Your task to perform on an android device: Go to battery settings Image 0: 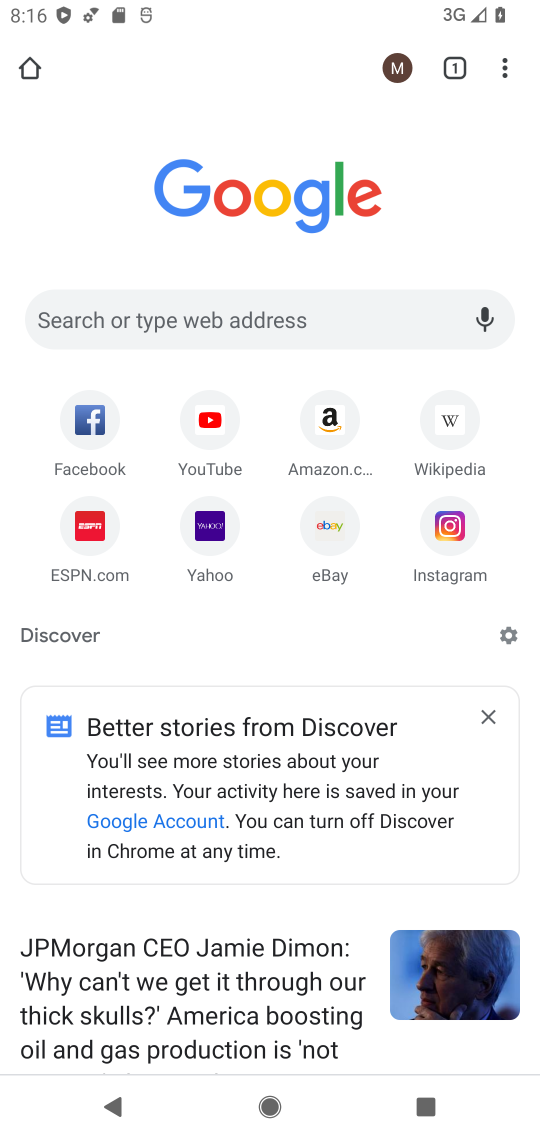
Step 0: press home button
Your task to perform on an android device: Go to battery settings Image 1: 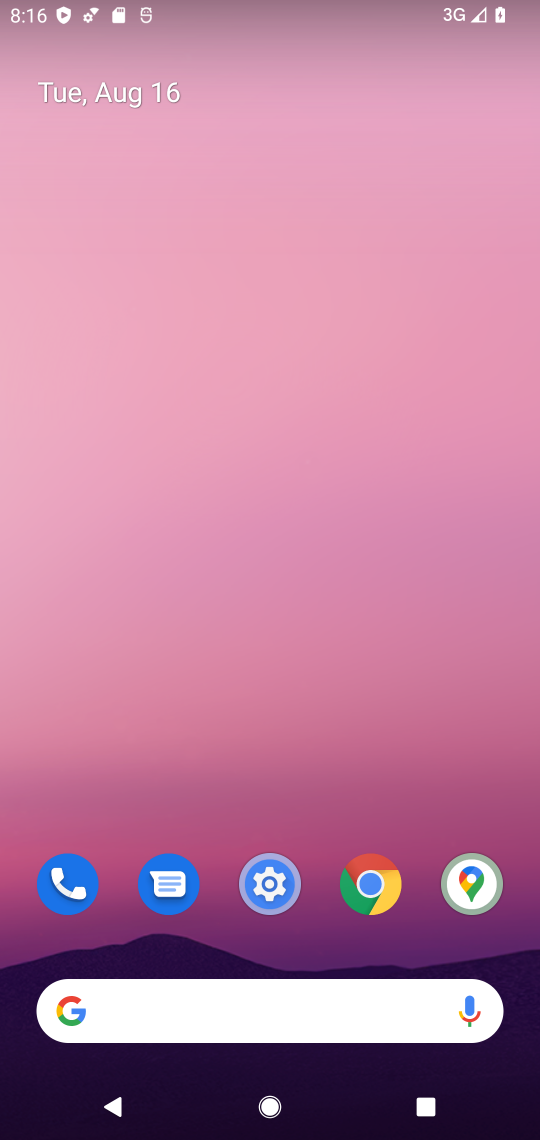
Step 1: click (267, 883)
Your task to perform on an android device: Go to battery settings Image 2: 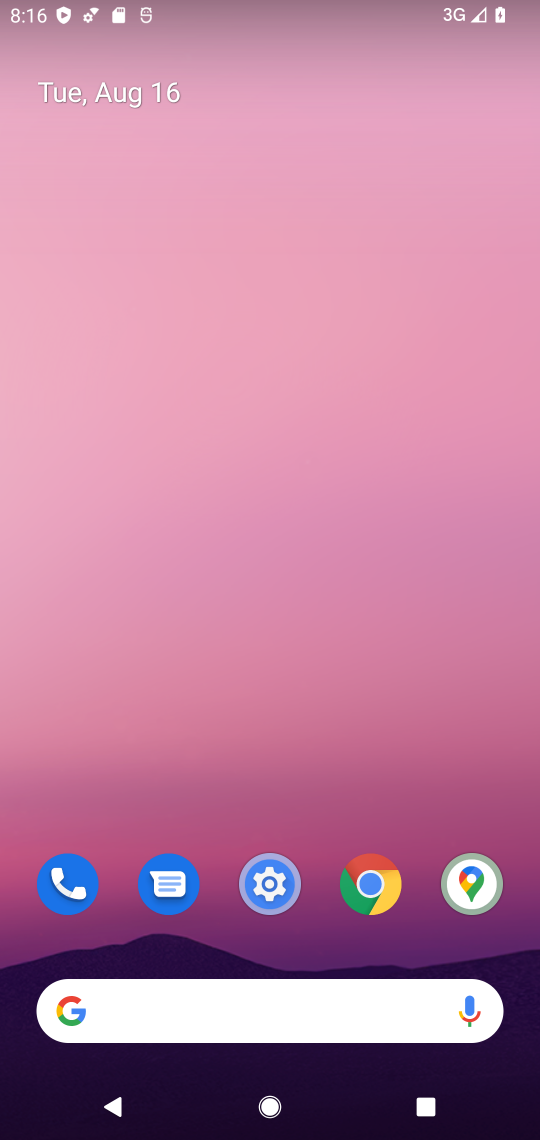
Step 2: click (267, 883)
Your task to perform on an android device: Go to battery settings Image 3: 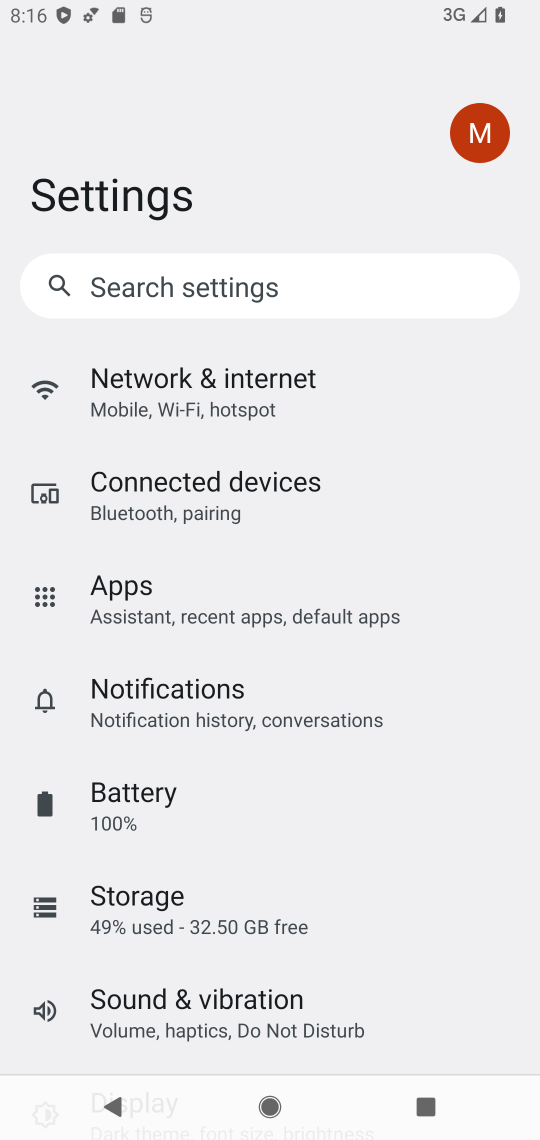
Step 3: click (142, 810)
Your task to perform on an android device: Go to battery settings Image 4: 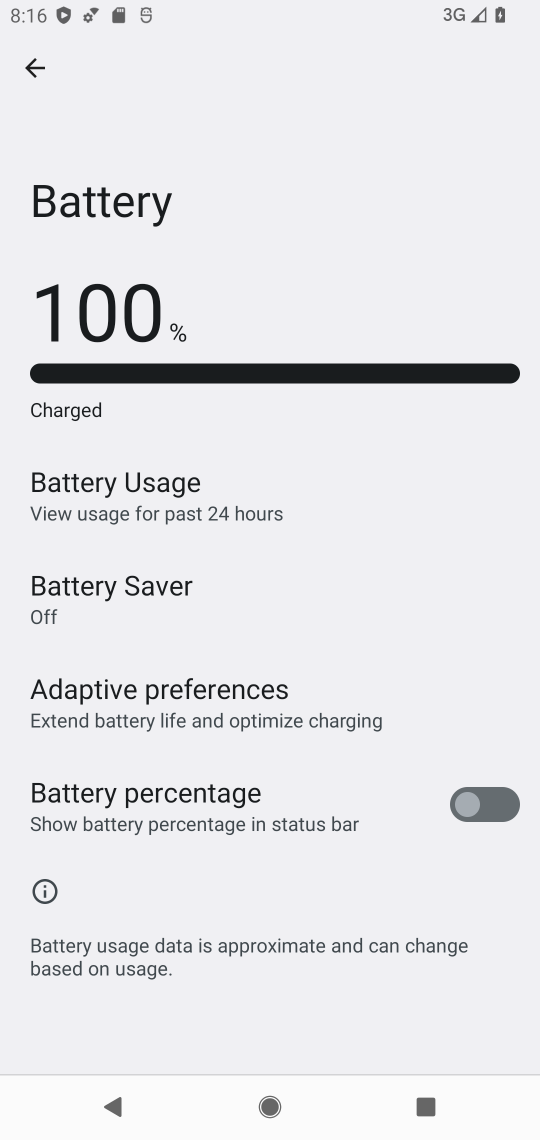
Step 4: task complete